Your task to perform on an android device: Go to Google maps Image 0: 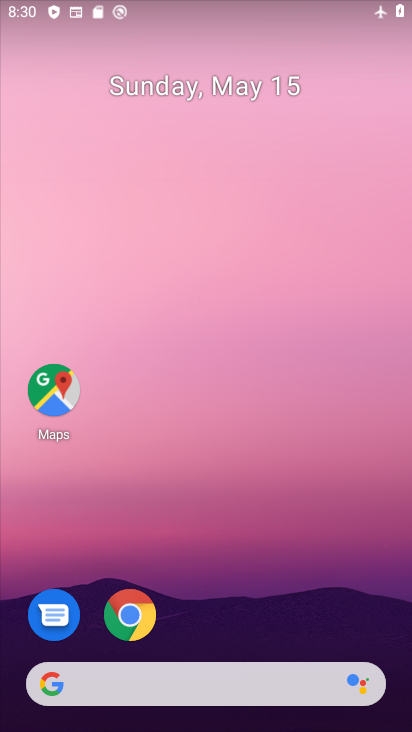
Step 0: drag from (156, 358) to (167, 291)
Your task to perform on an android device: Go to Google maps Image 1: 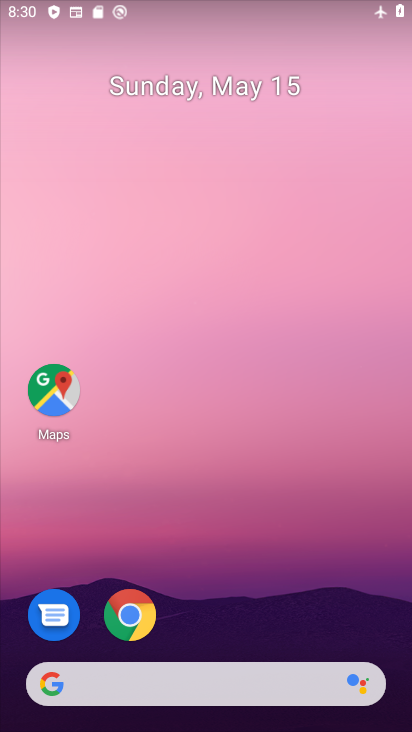
Step 1: click (46, 387)
Your task to perform on an android device: Go to Google maps Image 2: 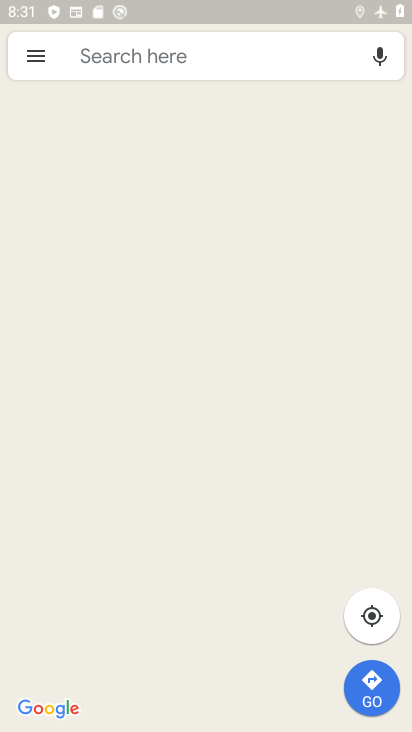
Step 2: drag from (163, 601) to (164, 165)
Your task to perform on an android device: Go to Google maps Image 3: 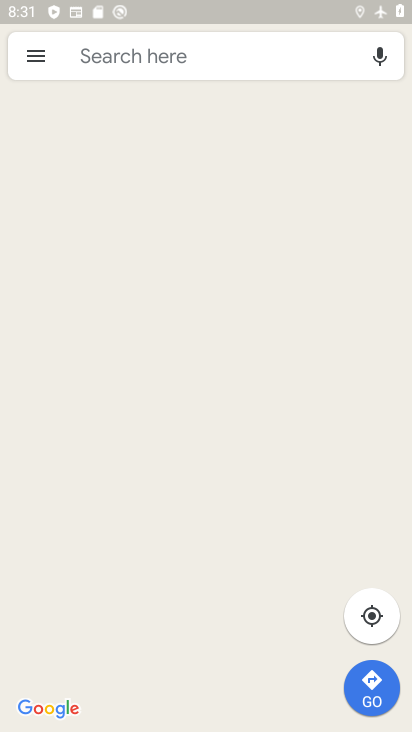
Step 3: click (368, 691)
Your task to perform on an android device: Go to Google maps Image 4: 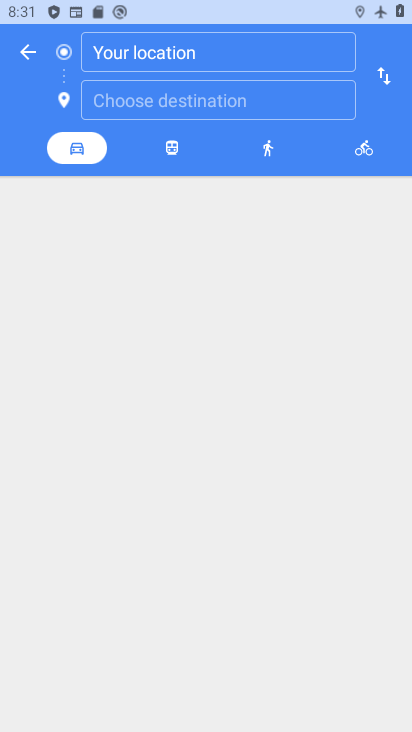
Step 4: task complete